Your task to perform on an android device: delete the emails in spam in the gmail app Image 0: 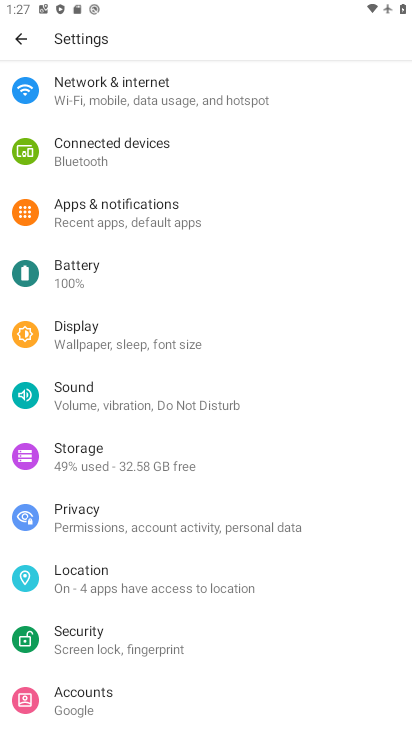
Step 0: press home button
Your task to perform on an android device: delete the emails in spam in the gmail app Image 1: 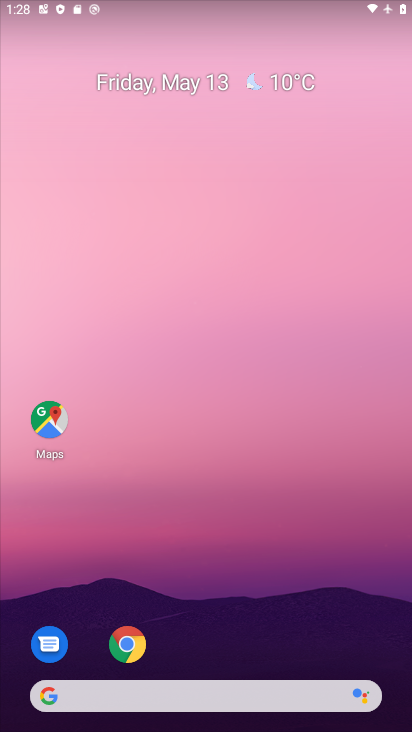
Step 1: drag from (188, 731) to (191, 139)
Your task to perform on an android device: delete the emails in spam in the gmail app Image 2: 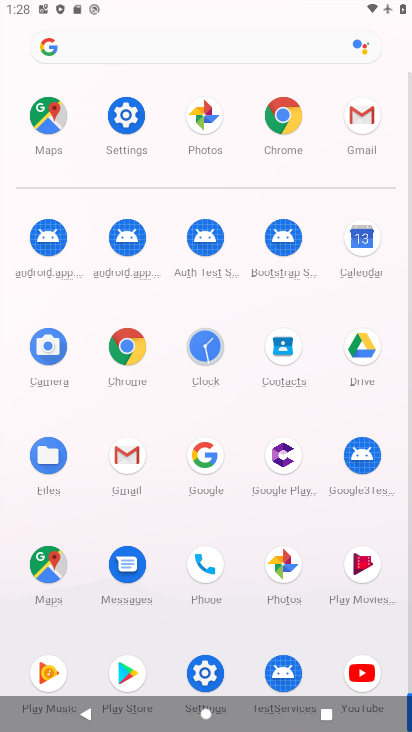
Step 2: click (127, 459)
Your task to perform on an android device: delete the emails in spam in the gmail app Image 3: 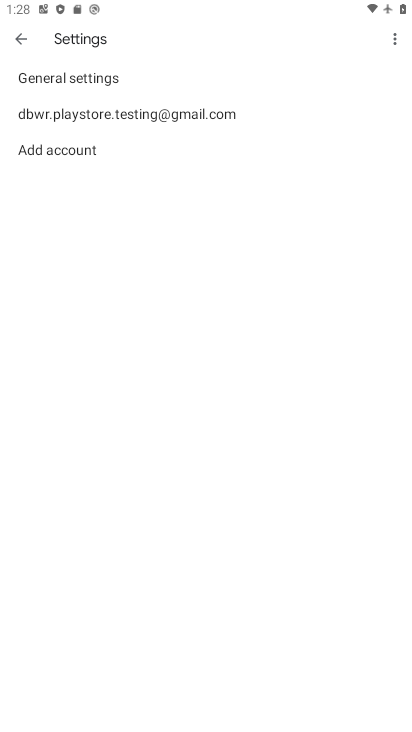
Step 3: click (132, 109)
Your task to perform on an android device: delete the emails in spam in the gmail app Image 4: 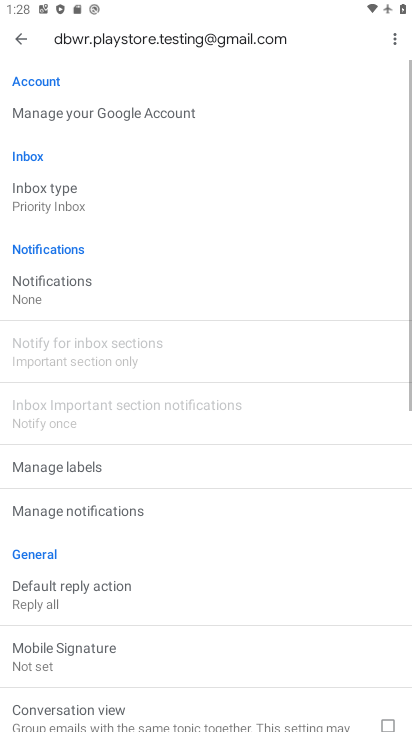
Step 4: click (19, 37)
Your task to perform on an android device: delete the emails in spam in the gmail app Image 5: 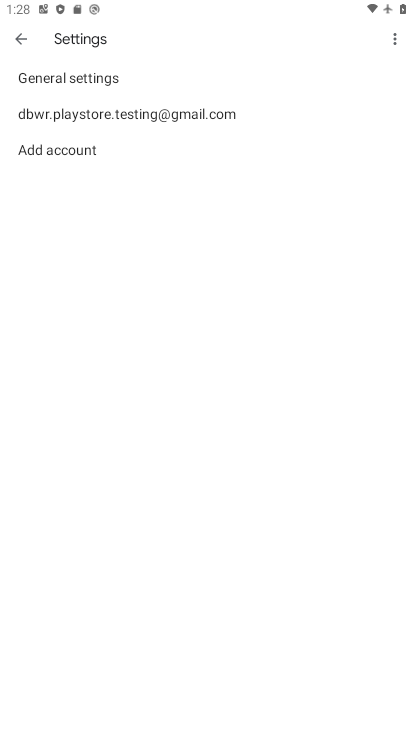
Step 5: click (19, 37)
Your task to perform on an android device: delete the emails in spam in the gmail app Image 6: 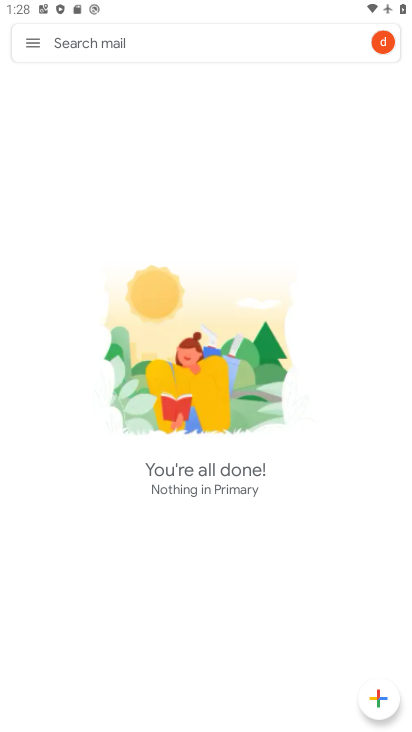
Step 6: task complete